Your task to perform on an android device: turn on wifi Image 0: 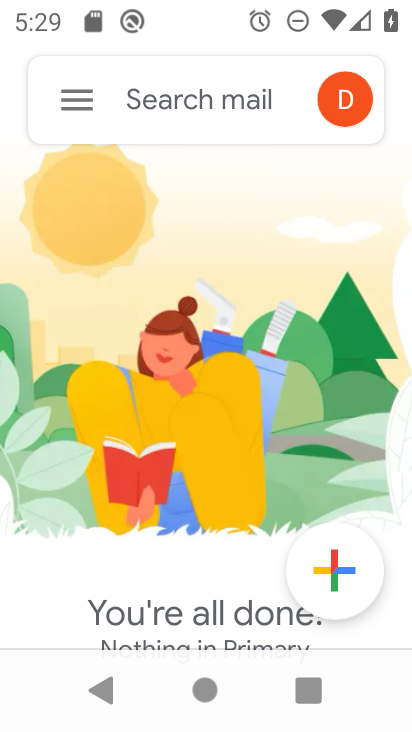
Step 0: press home button
Your task to perform on an android device: turn on wifi Image 1: 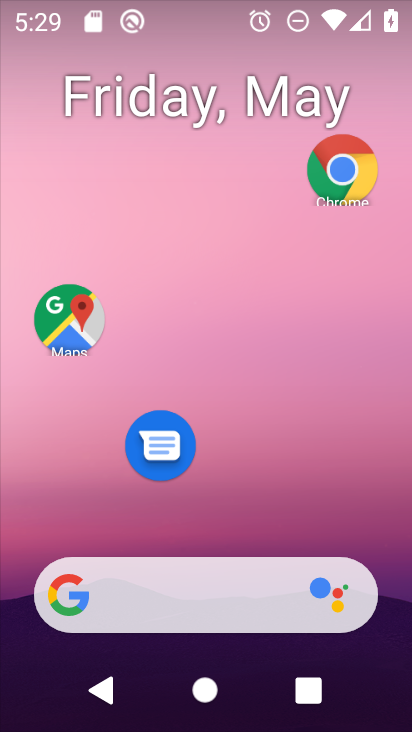
Step 1: drag from (247, 506) to (198, 1)
Your task to perform on an android device: turn on wifi Image 2: 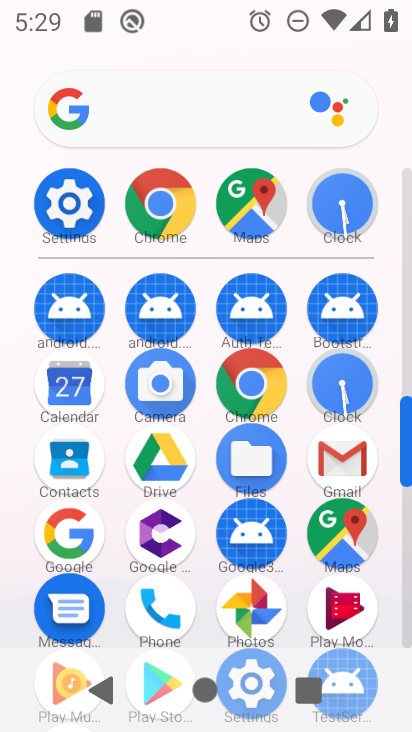
Step 2: click (67, 207)
Your task to perform on an android device: turn on wifi Image 3: 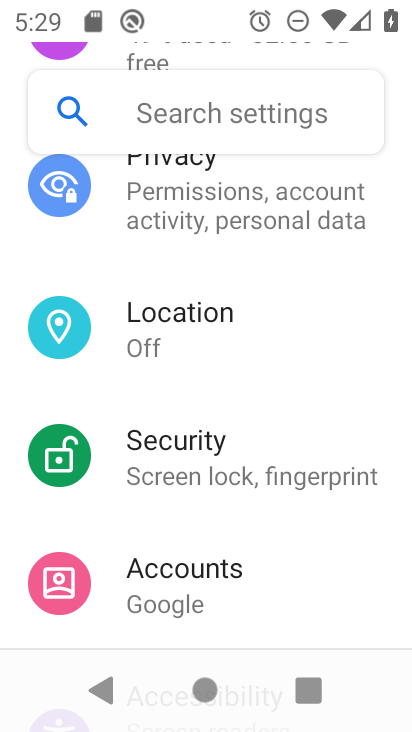
Step 3: drag from (172, 237) to (232, 573)
Your task to perform on an android device: turn on wifi Image 4: 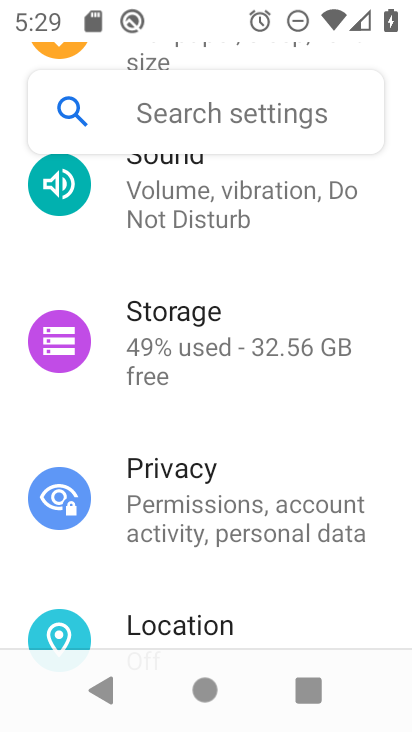
Step 4: drag from (245, 290) to (237, 690)
Your task to perform on an android device: turn on wifi Image 5: 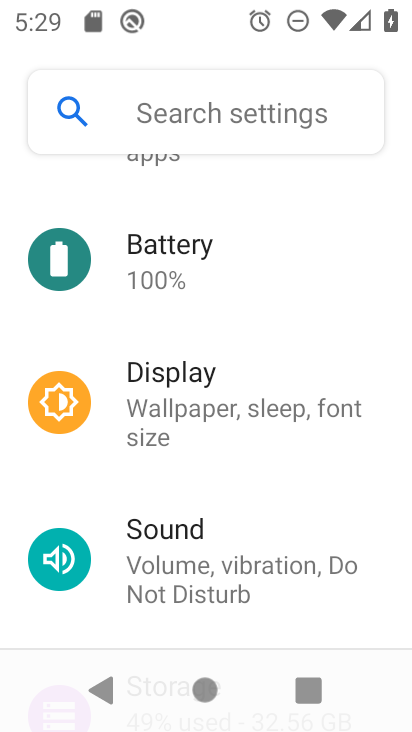
Step 5: drag from (192, 268) to (204, 529)
Your task to perform on an android device: turn on wifi Image 6: 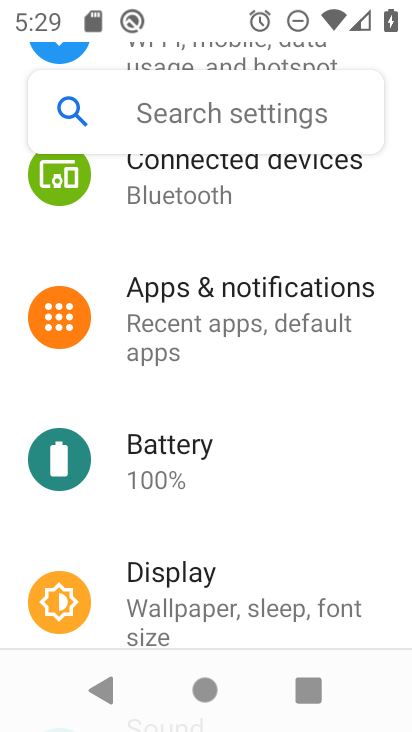
Step 6: drag from (173, 292) to (203, 709)
Your task to perform on an android device: turn on wifi Image 7: 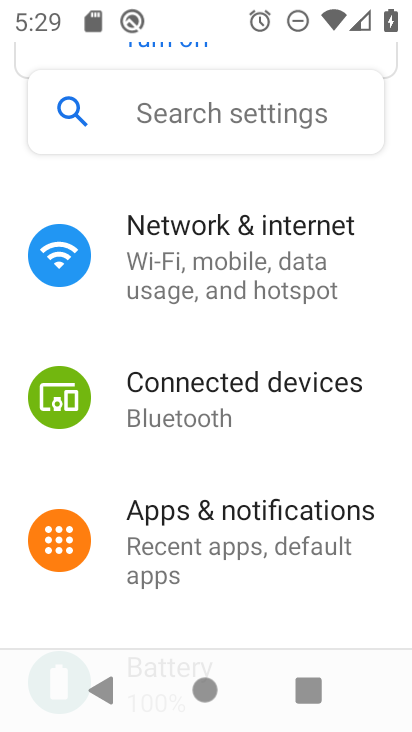
Step 7: click (200, 263)
Your task to perform on an android device: turn on wifi Image 8: 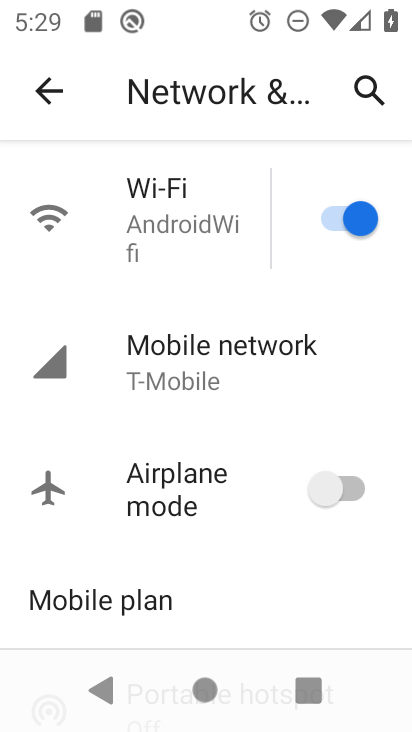
Step 8: task complete